Your task to perform on an android device: When is my next appointment? Image 0: 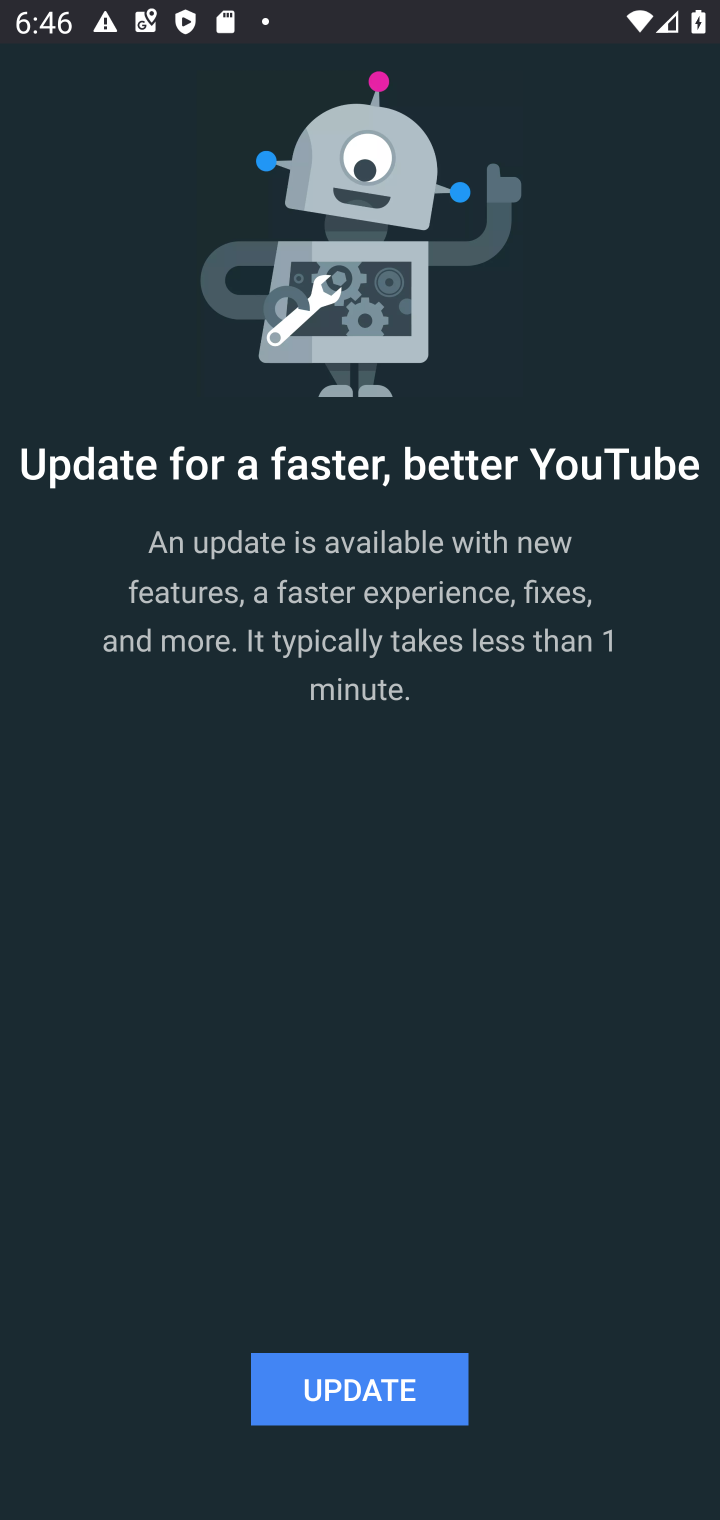
Step 0: press home button
Your task to perform on an android device: When is my next appointment? Image 1: 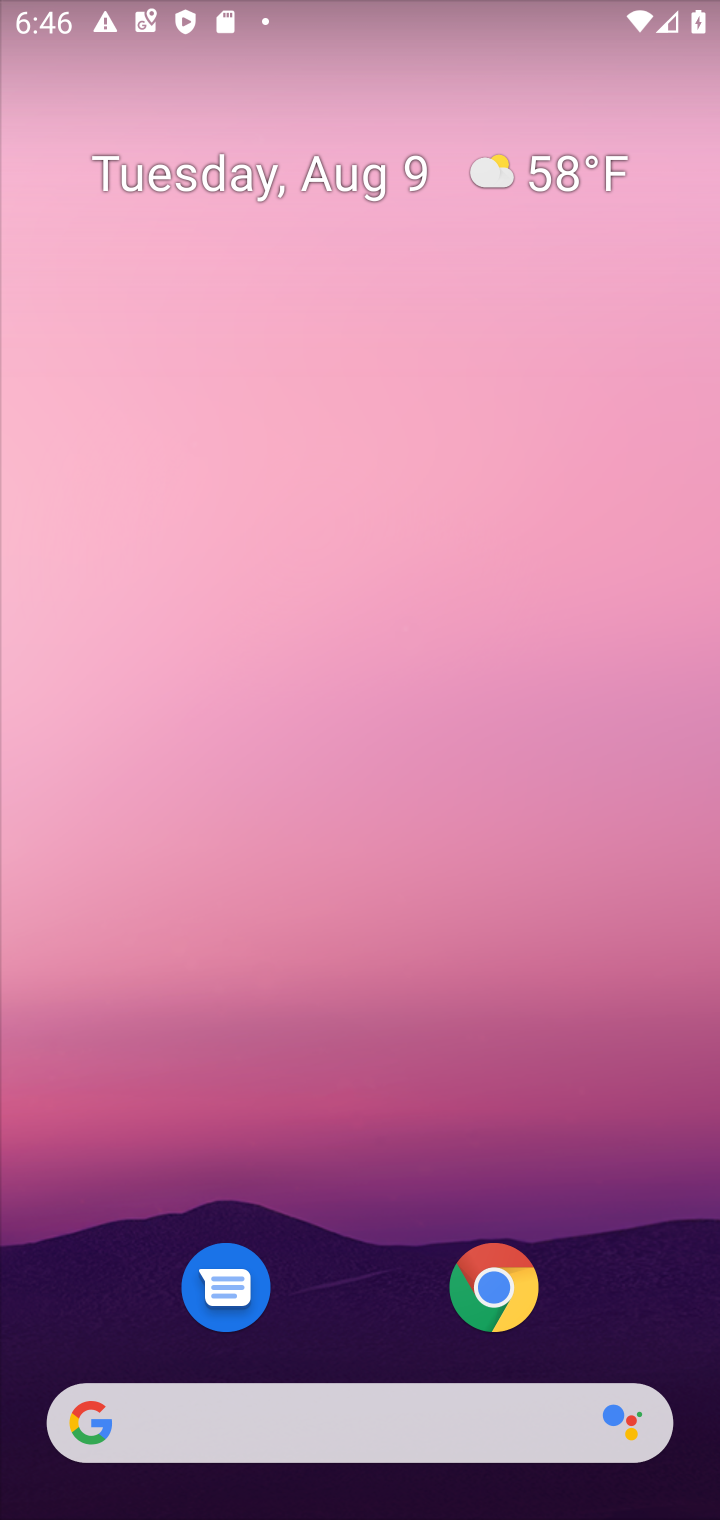
Step 1: drag from (333, 885) to (416, 353)
Your task to perform on an android device: When is my next appointment? Image 2: 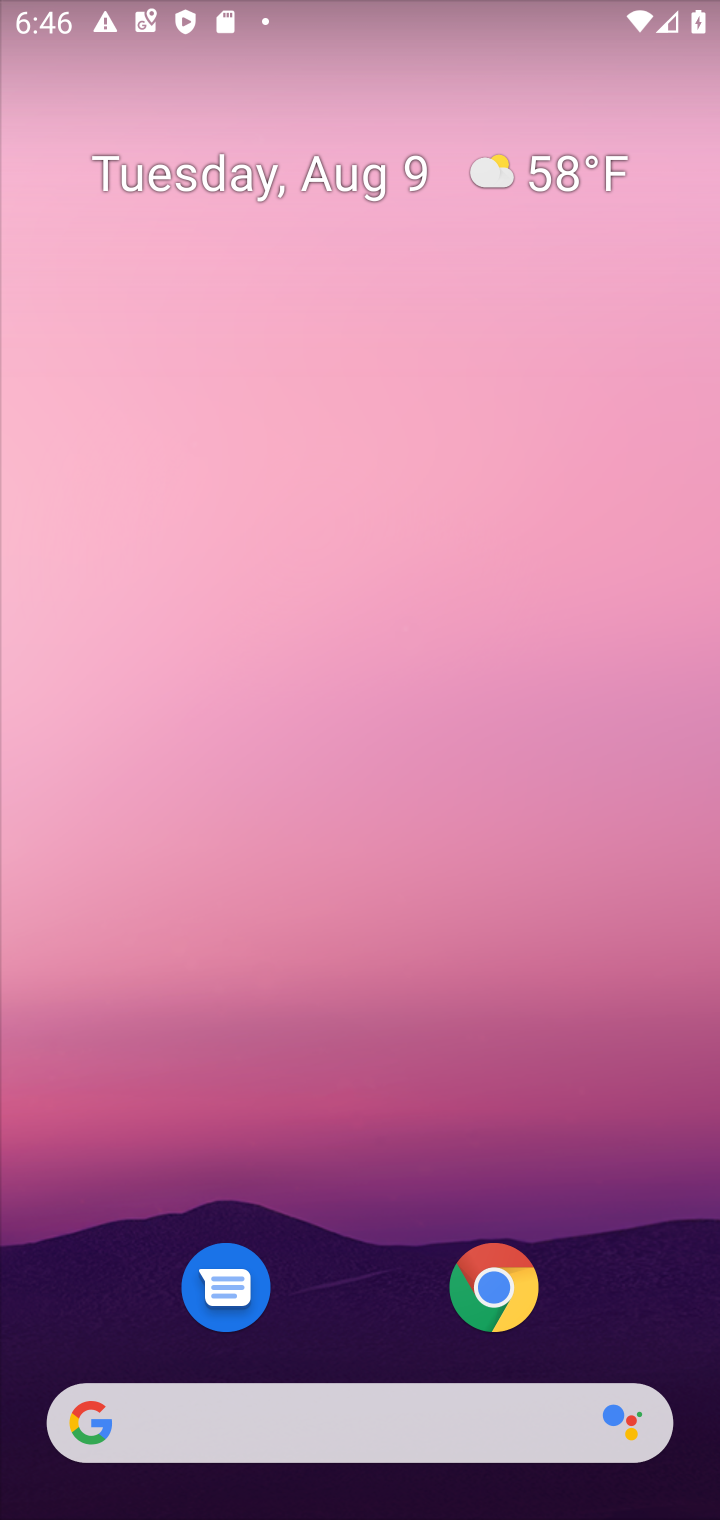
Step 2: drag from (373, 414) to (380, 143)
Your task to perform on an android device: When is my next appointment? Image 3: 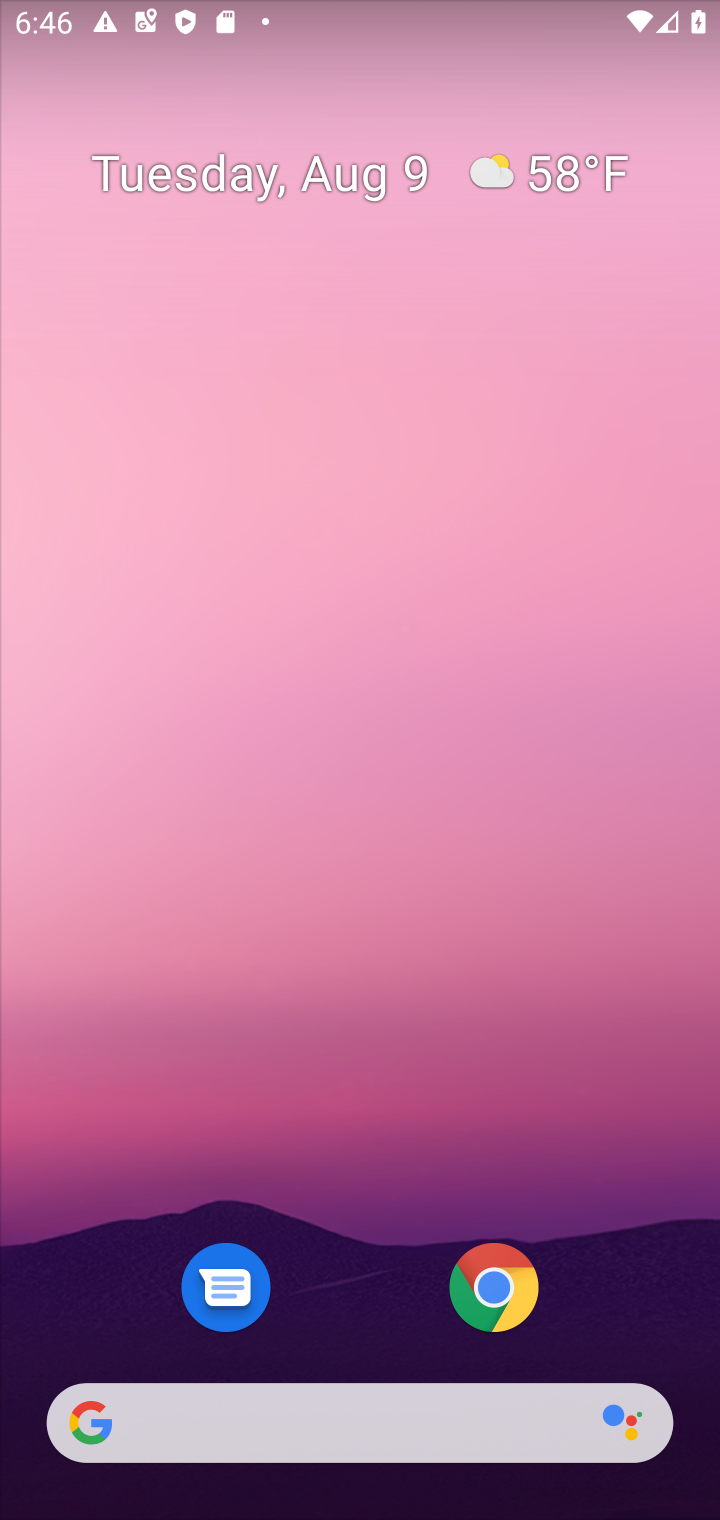
Step 3: drag from (511, 453) to (584, 39)
Your task to perform on an android device: When is my next appointment? Image 4: 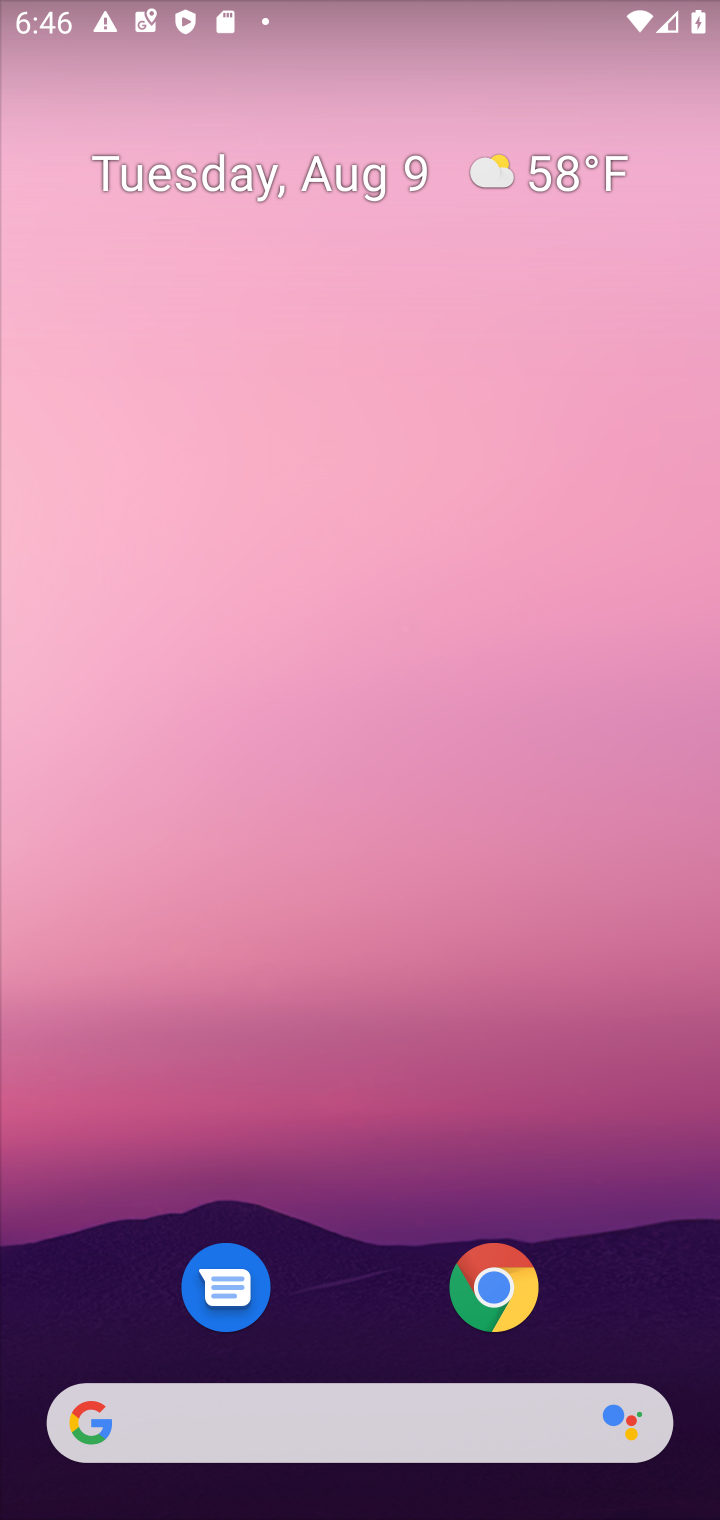
Step 4: drag from (334, 1136) to (496, 11)
Your task to perform on an android device: When is my next appointment? Image 5: 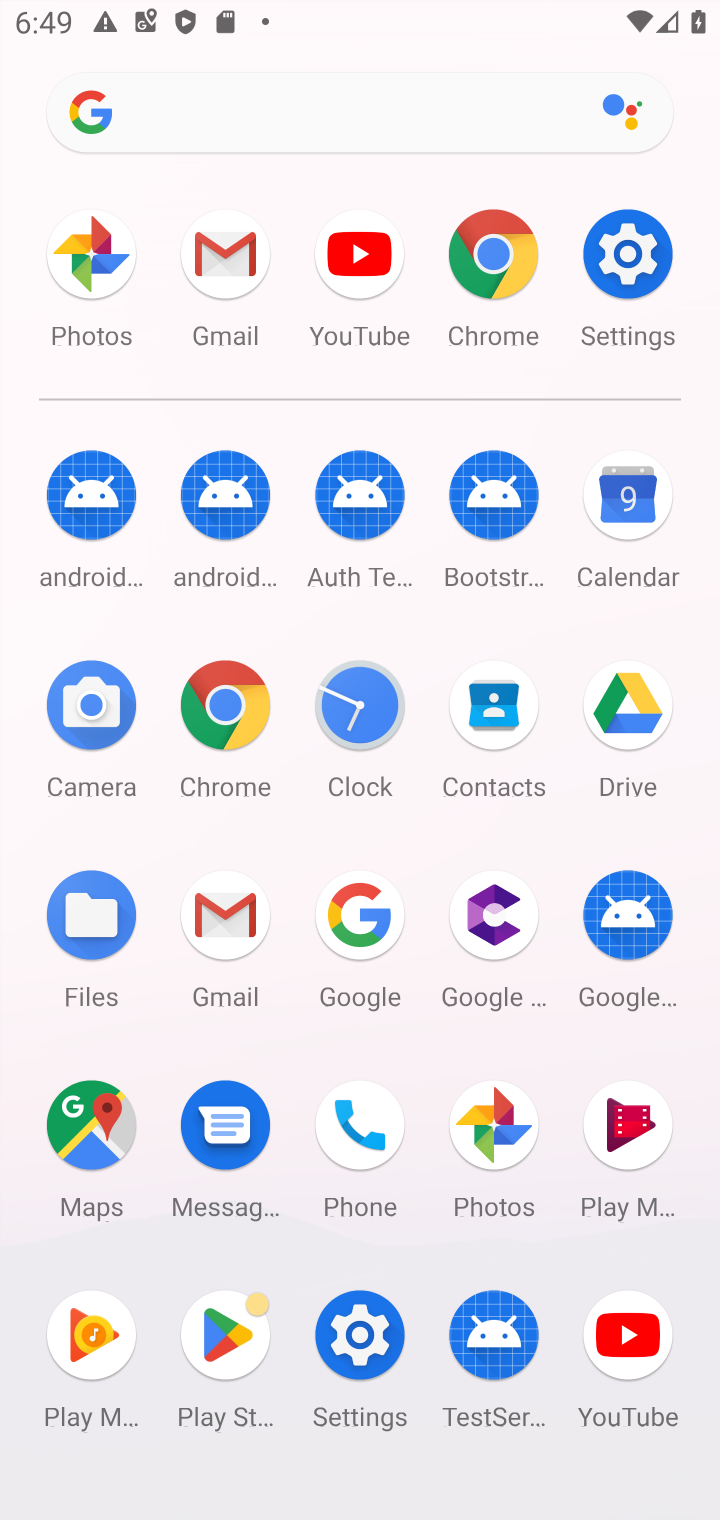
Step 5: press home button
Your task to perform on an android device: When is my next appointment? Image 6: 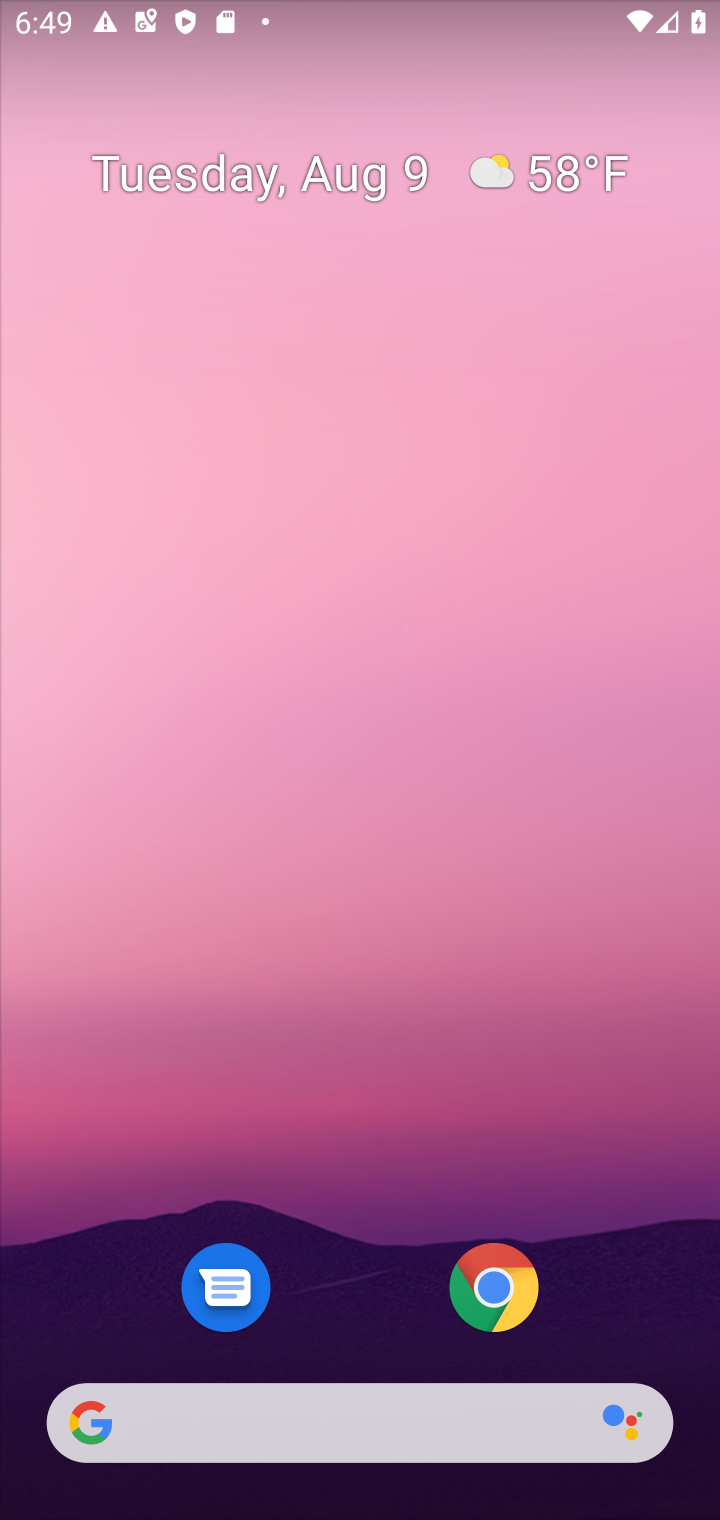
Step 6: drag from (322, 1164) to (506, 443)
Your task to perform on an android device: When is my next appointment? Image 7: 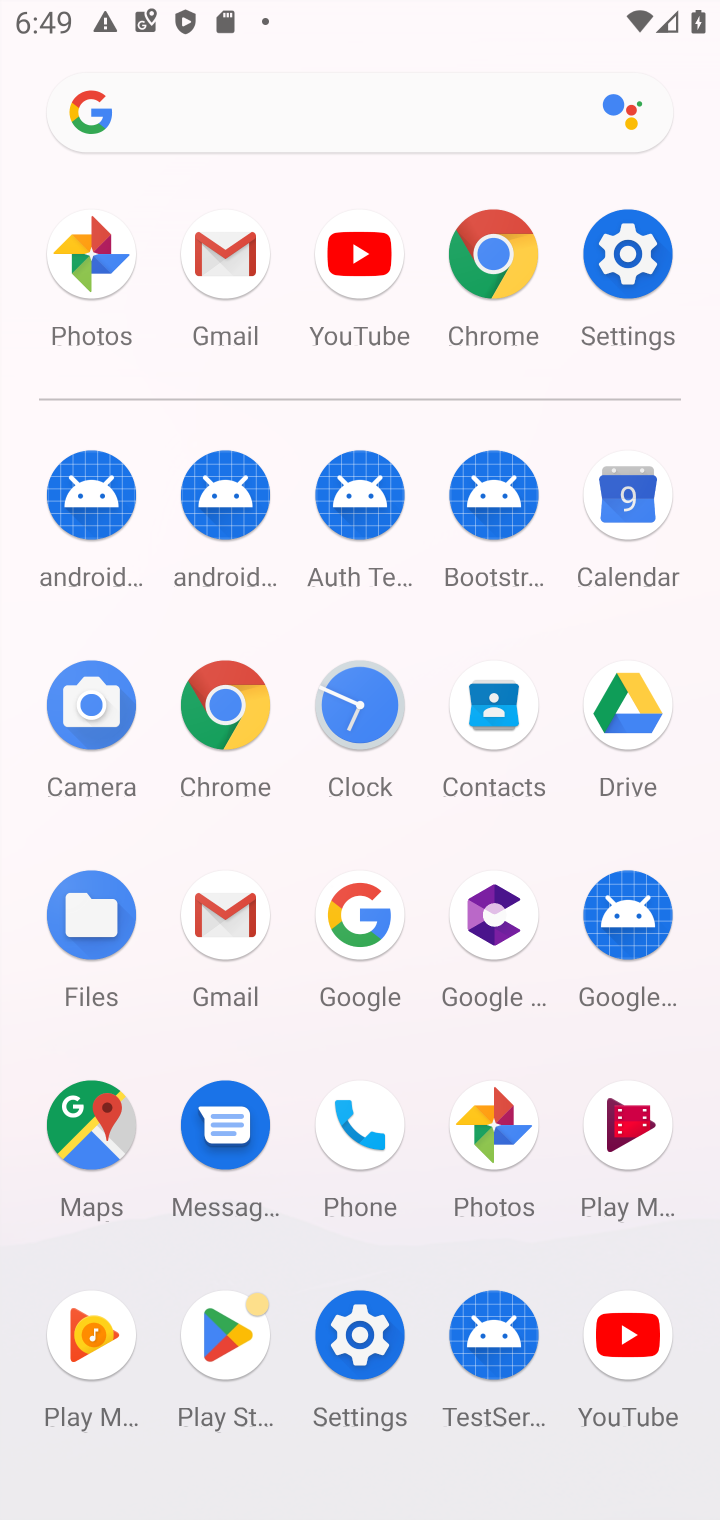
Step 7: click (614, 502)
Your task to perform on an android device: When is my next appointment? Image 8: 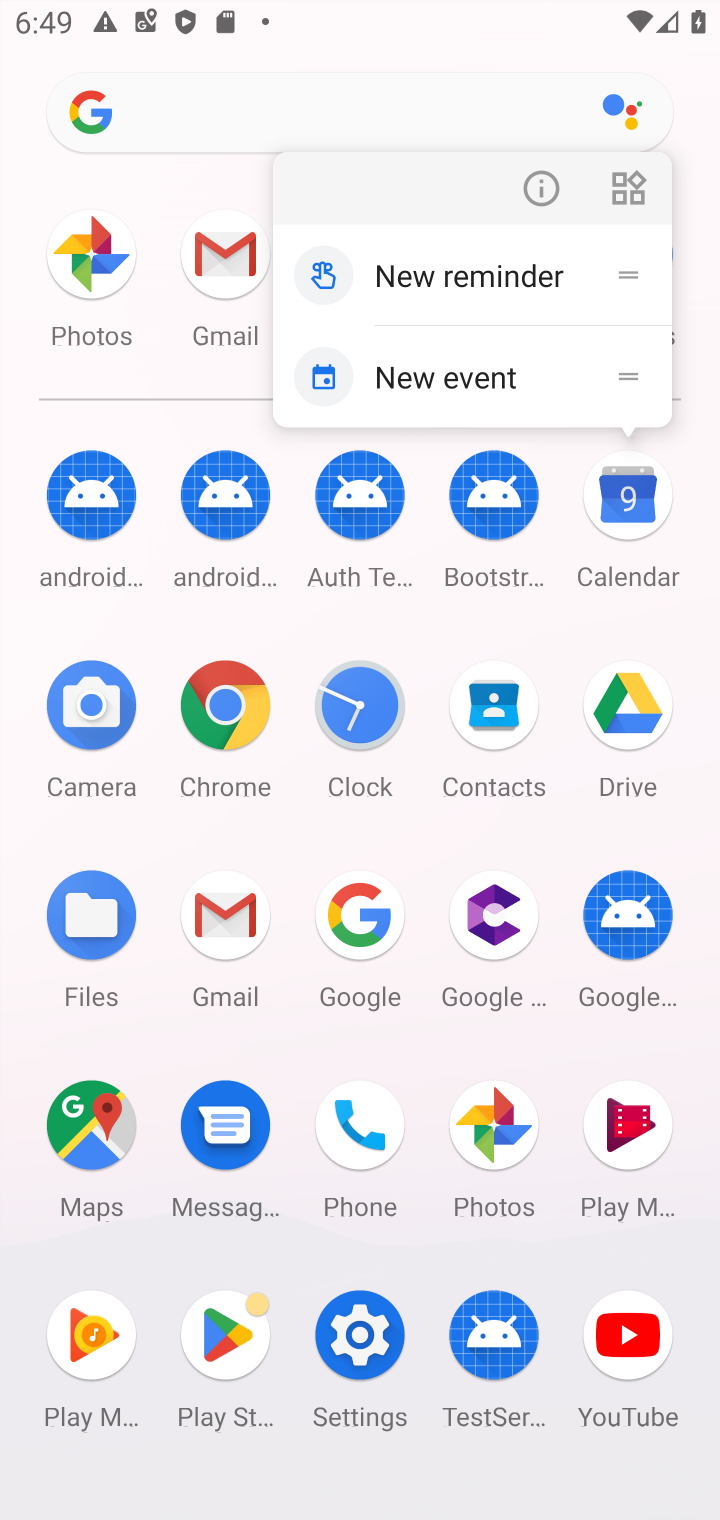
Step 8: click (620, 498)
Your task to perform on an android device: When is my next appointment? Image 9: 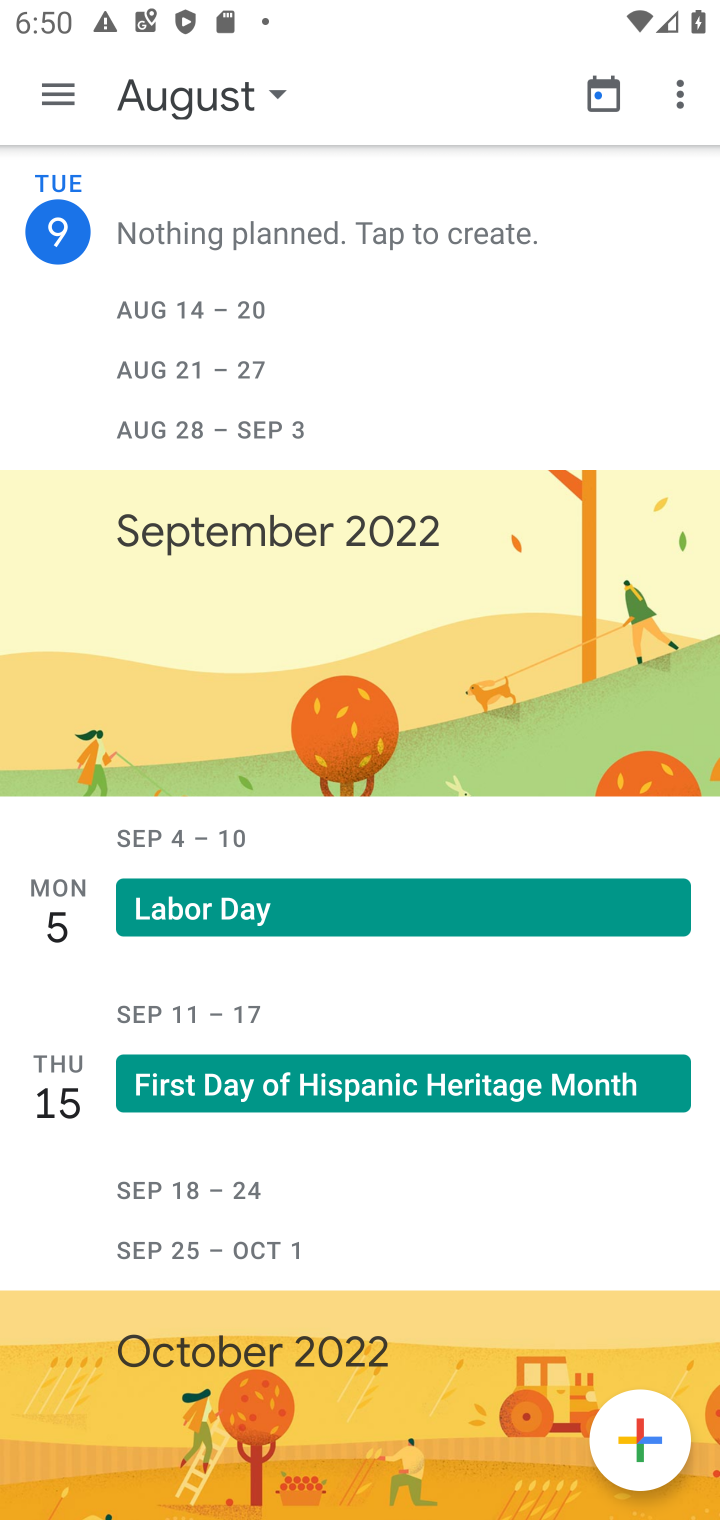
Step 9: task complete